Your task to perform on an android device: open app "Chime – Mobile Banking" (install if not already installed) Image 0: 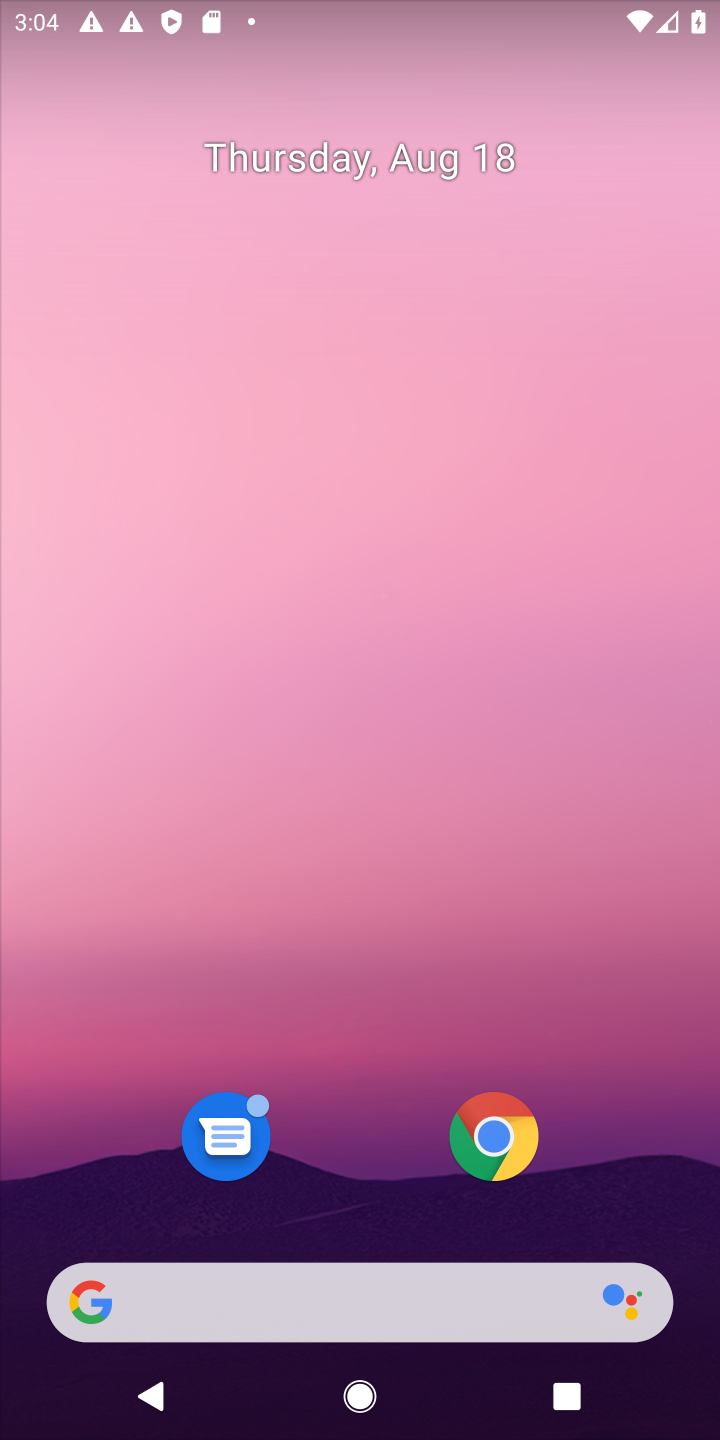
Step 0: drag from (338, 1186) to (407, 1)
Your task to perform on an android device: open app "Chime – Mobile Banking" (install if not already installed) Image 1: 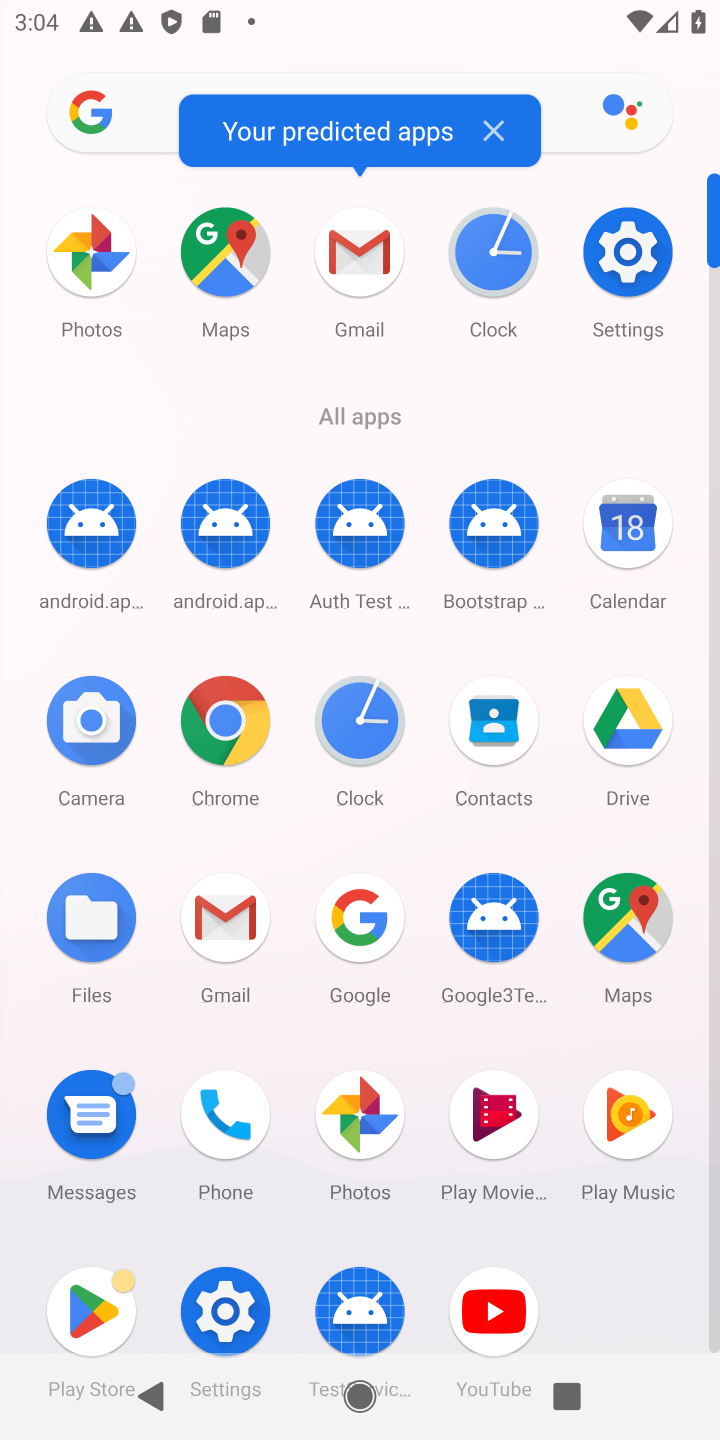
Step 1: click (80, 1327)
Your task to perform on an android device: open app "Chime – Mobile Banking" (install if not already installed) Image 2: 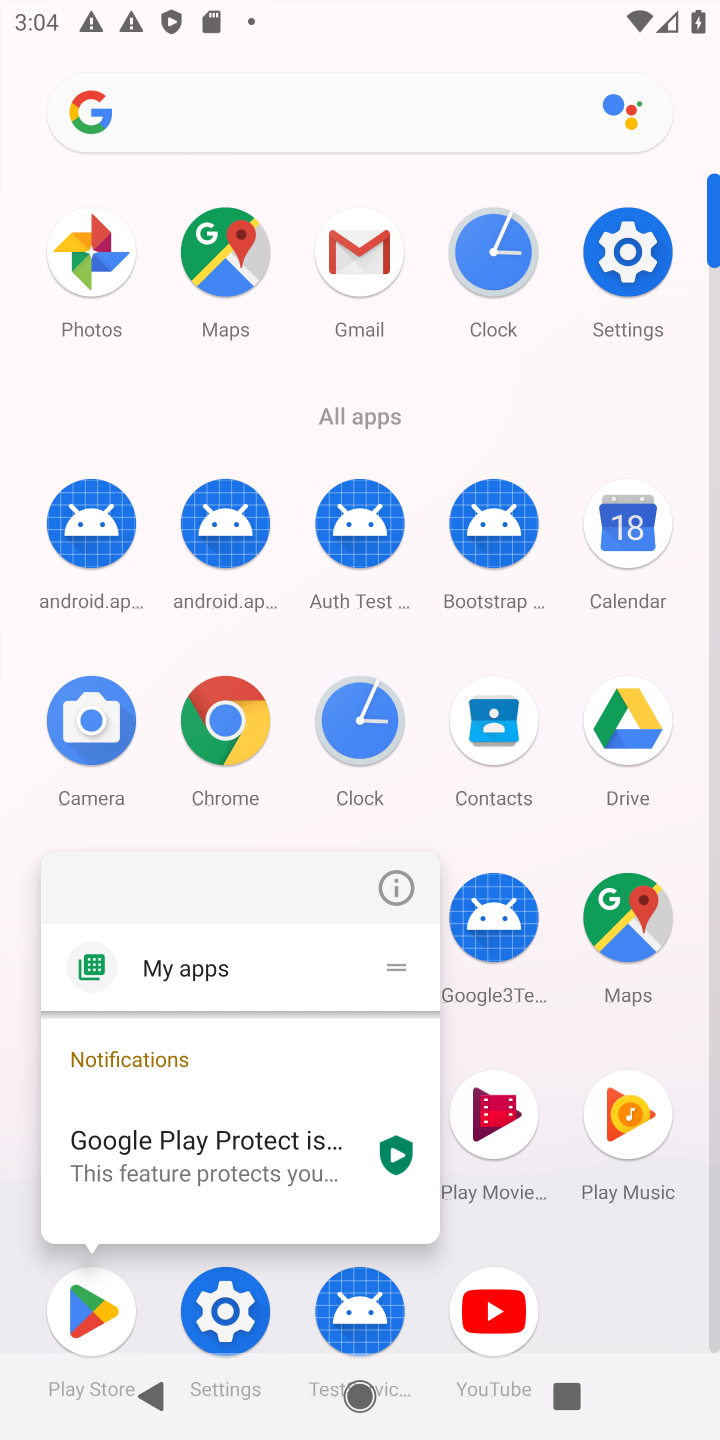
Step 2: click (83, 1311)
Your task to perform on an android device: open app "Chime – Mobile Banking" (install if not already installed) Image 3: 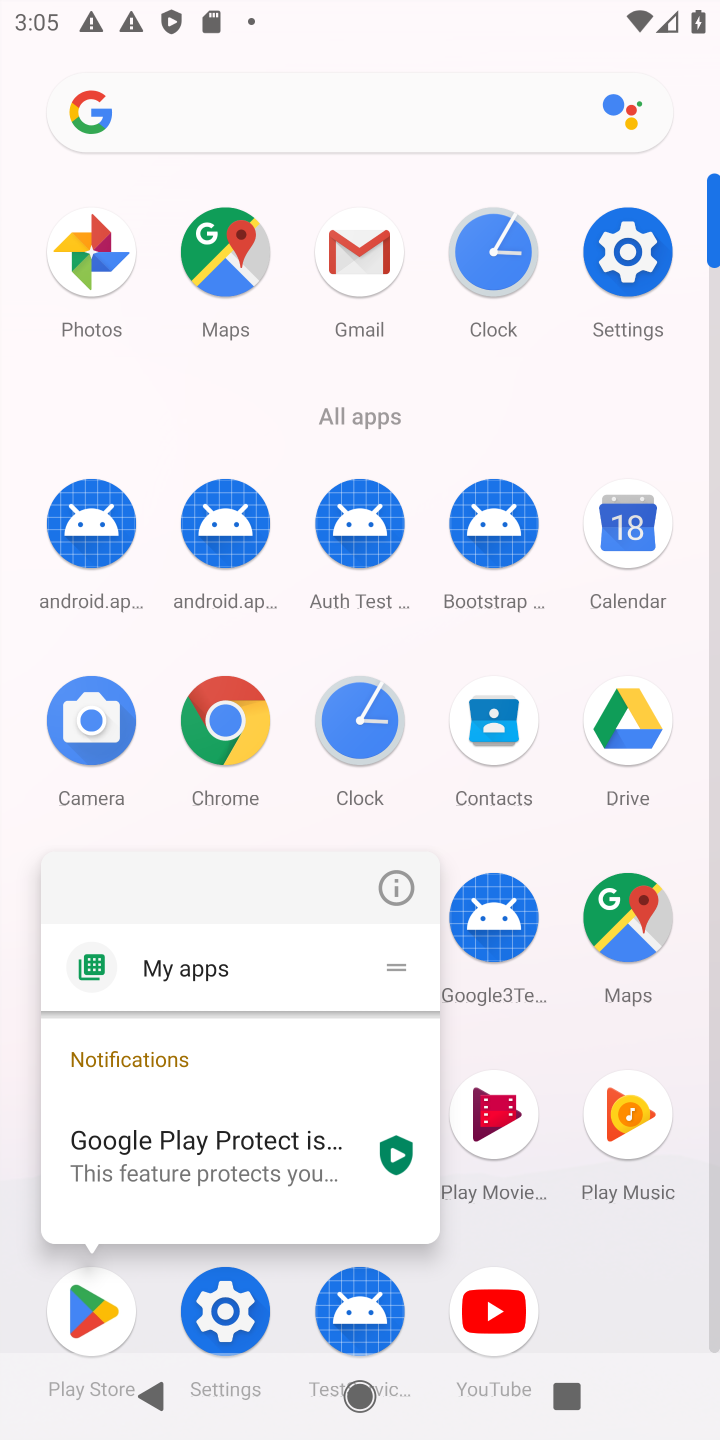
Step 3: click (83, 1309)
Your task to perform on an android device: open app "Chime – Mobile Banking" (install if not already installed) Image 4: 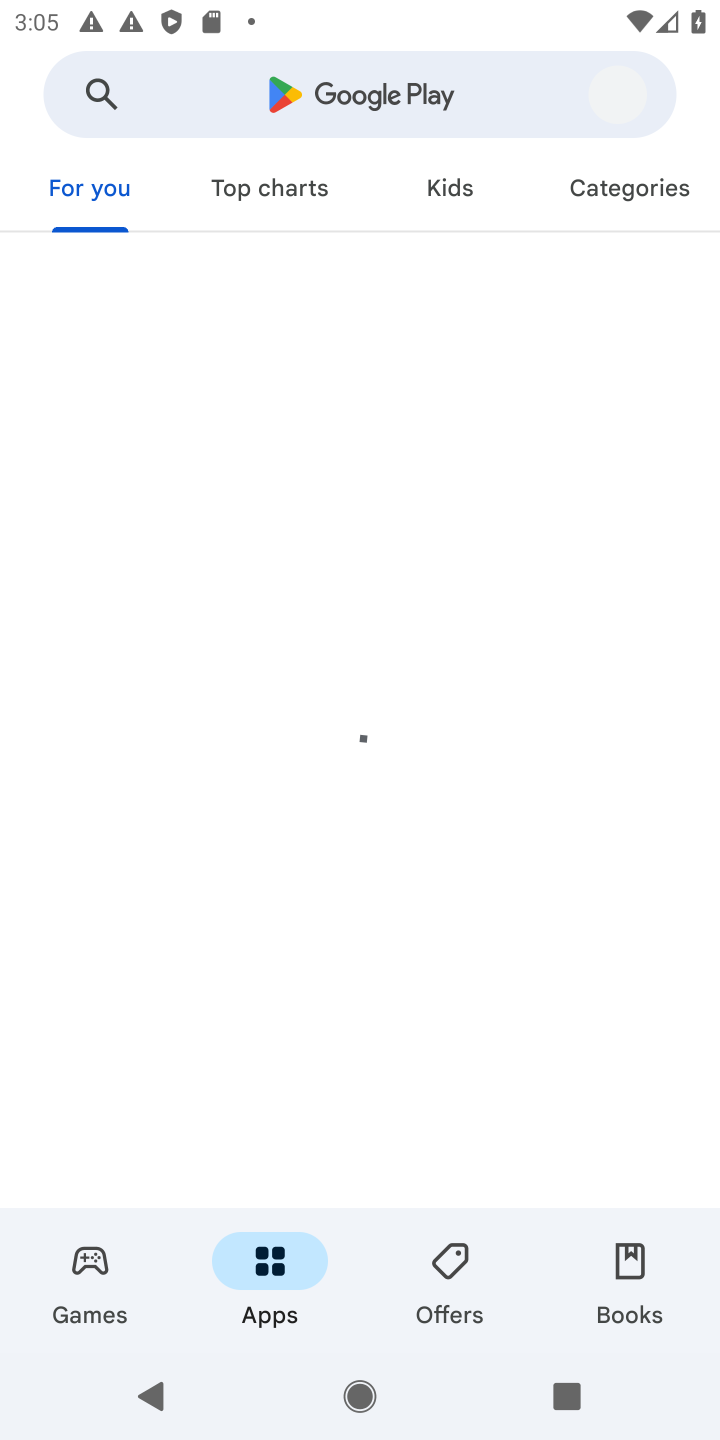
Step 4: click (334, 101)
Your task to perform on an android device: open app "Chime – Mobile Banking" (install if not already installed) Image 5: 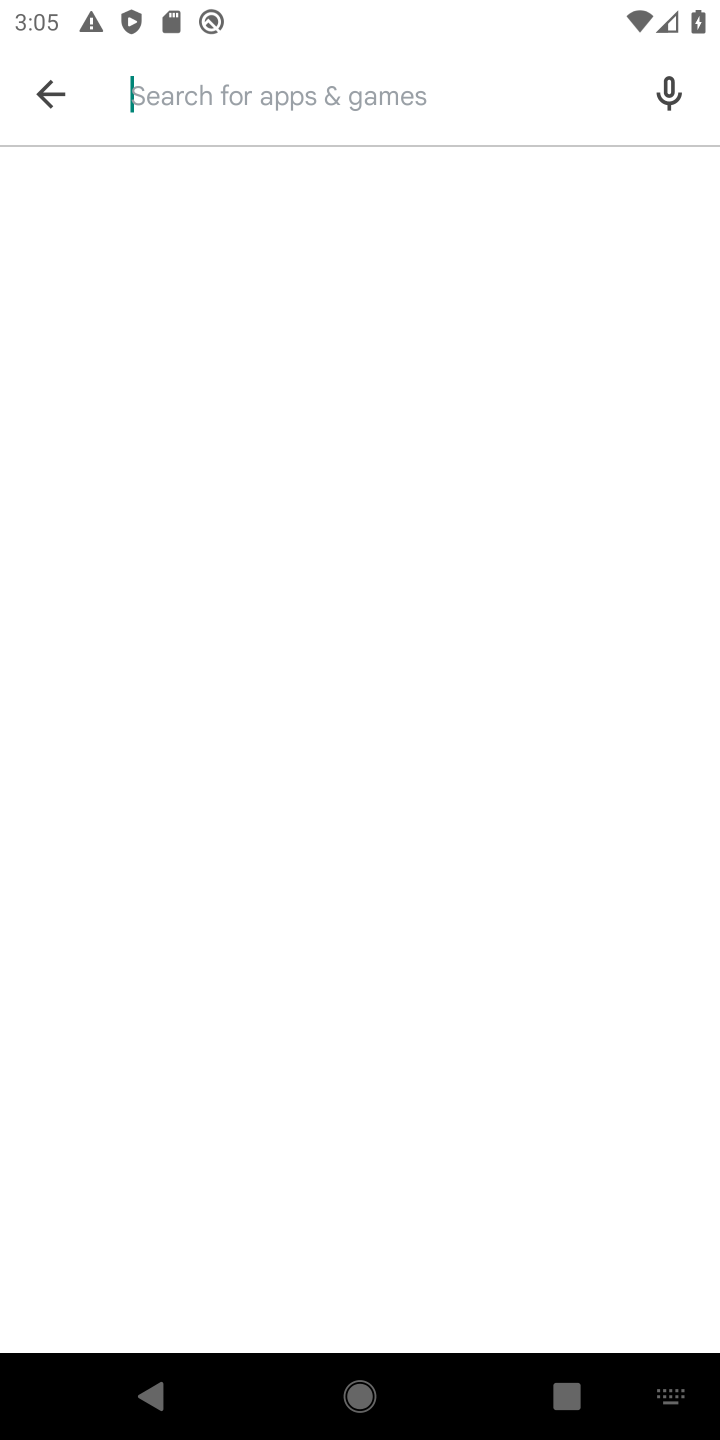
Step 5: type "Chime"
Your task to perform on an android device: open app "Chime – Mobile Banking" (install if not already installed) Image 6: 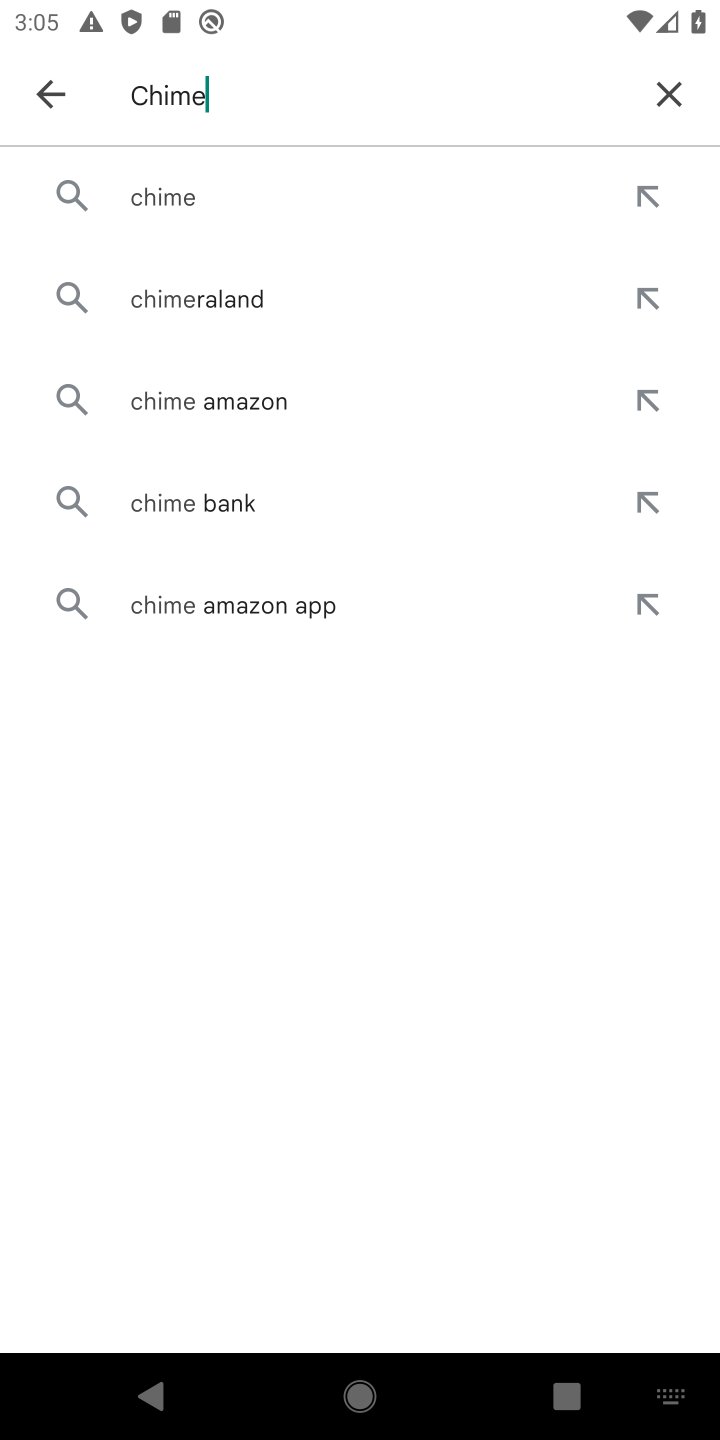
Step 6: click (174, 187)
Your task to perform on an android device: open app "Chime – Mobile Banking" (install if not already installed) Image 7: 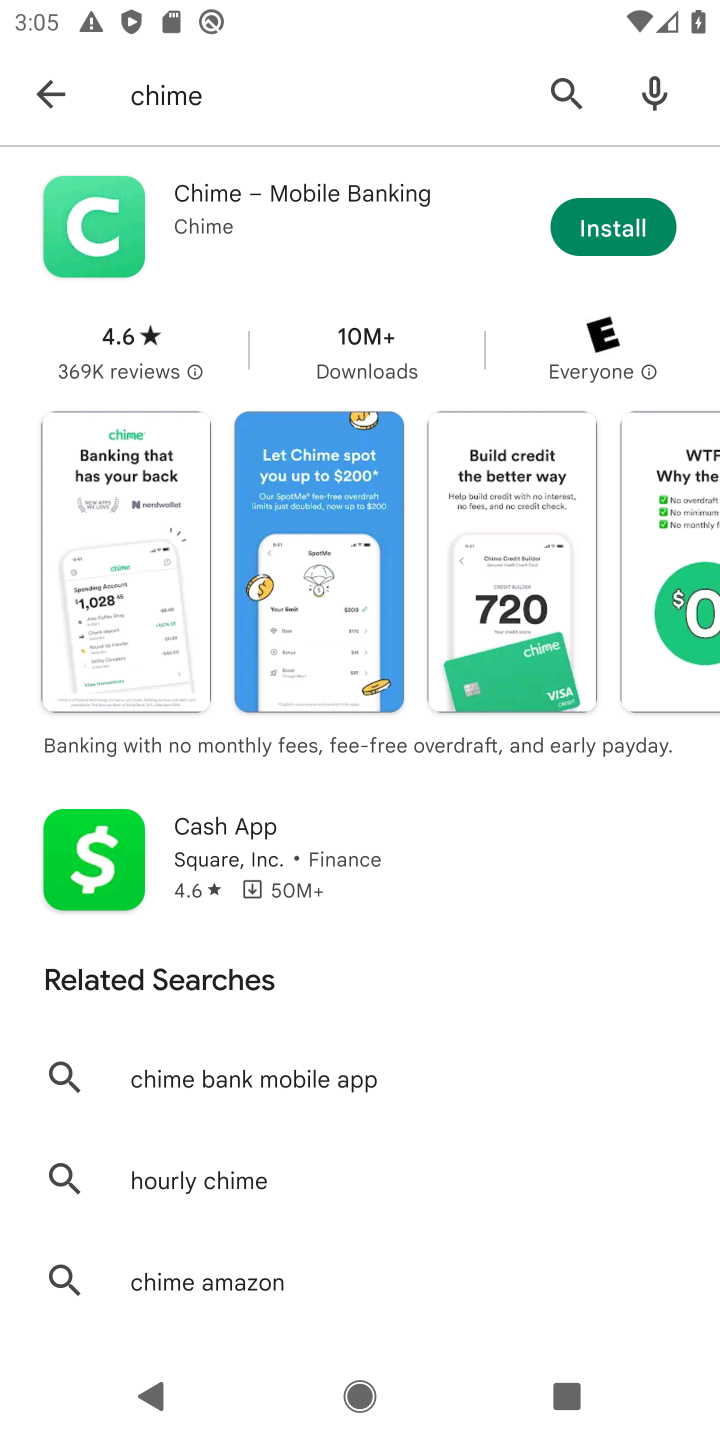
Step 7: click (623, 213)
Your task to perform on an android device: open app "Chime – Mobile Banking" (install if not already installed) Image 8: 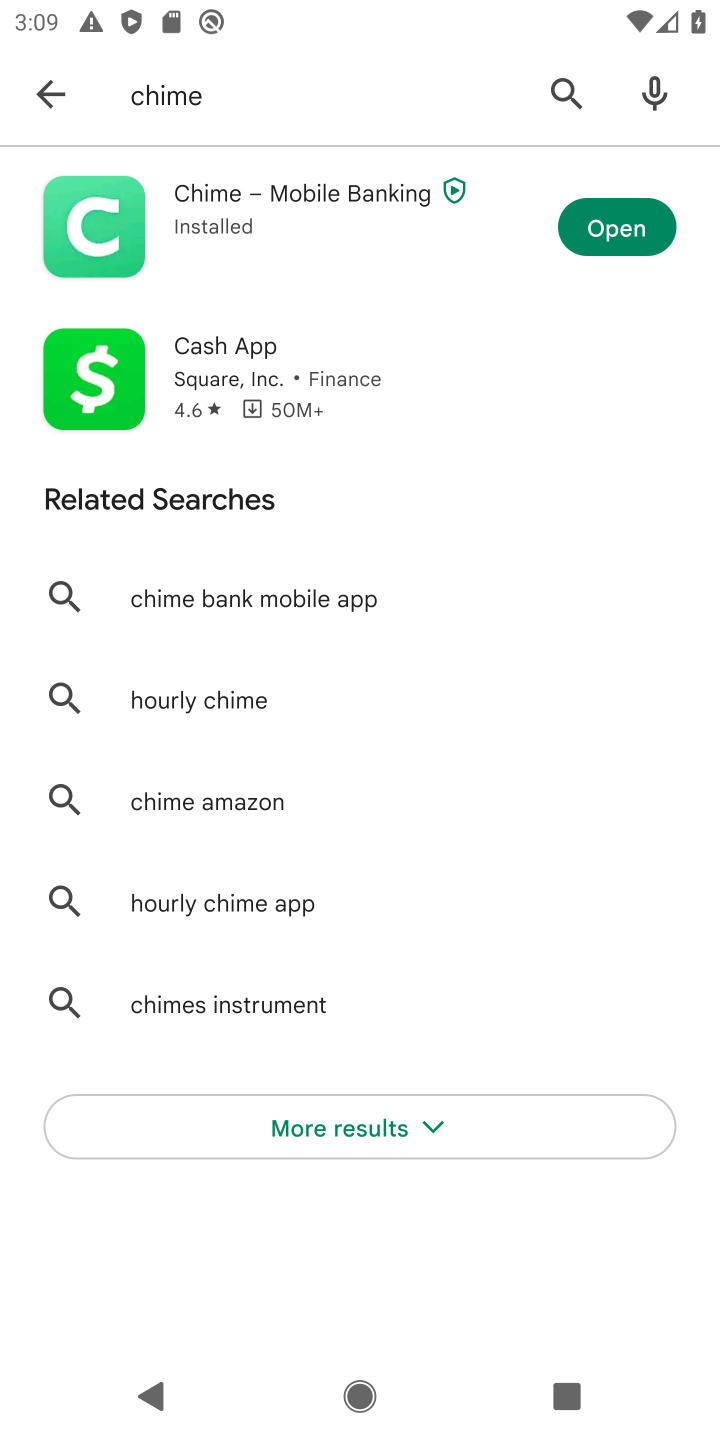
Step 8: click (633, 225)
Your task to perform on an android device: open app "Chime – Mobile Banking" (install if not already installed) Image 9: 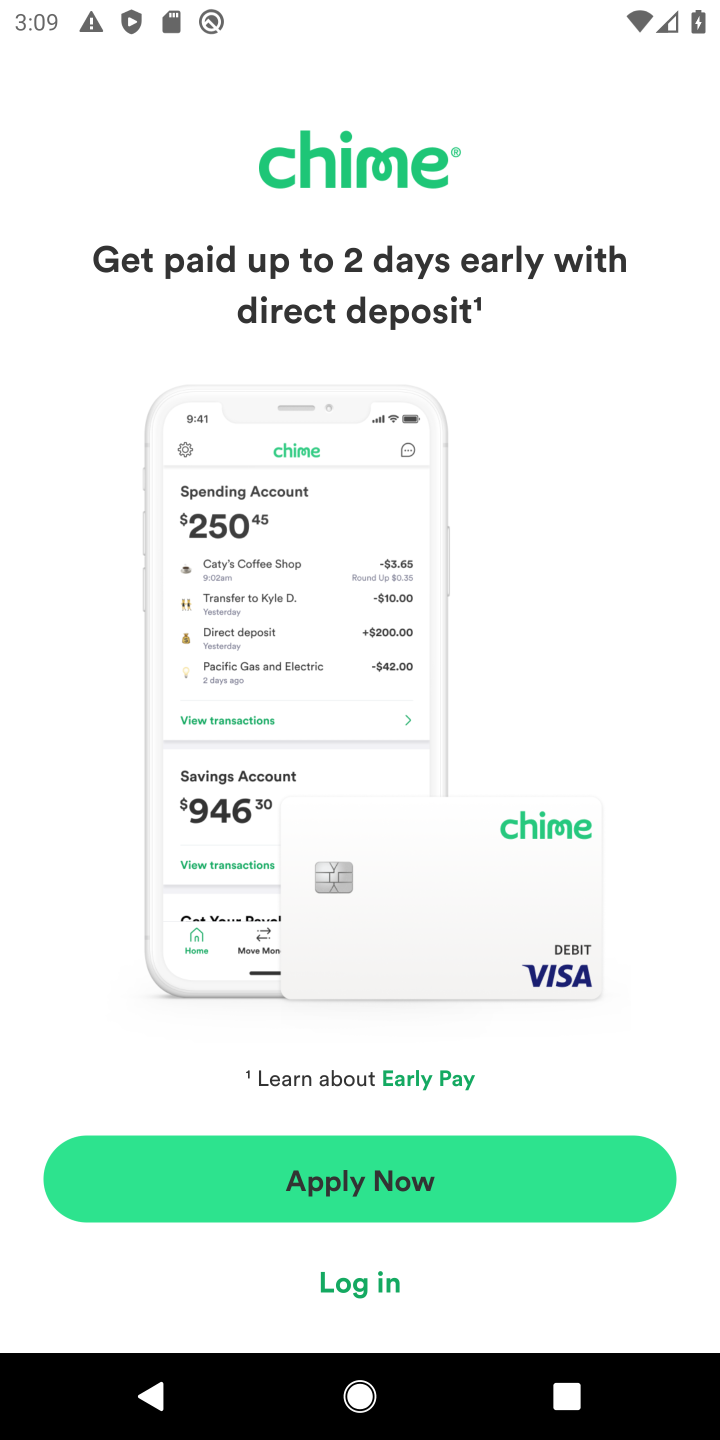
Step 9: click (358, 1276)
Your task to perform on an android device: open app "Chime – Mobile Banking" (install if not already installed) Image 10: 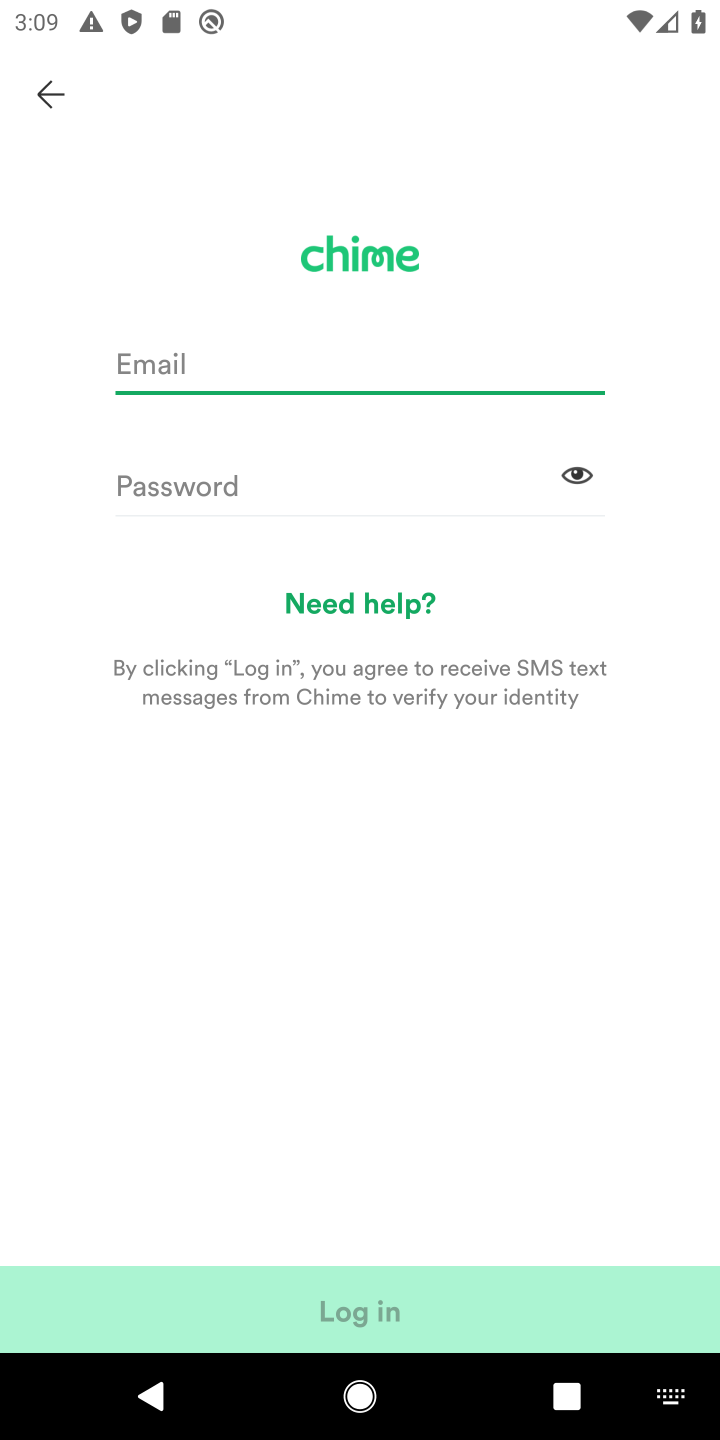
Step 10: task complete